Your task to perform on an android device: Open Reddit.com Image 0: 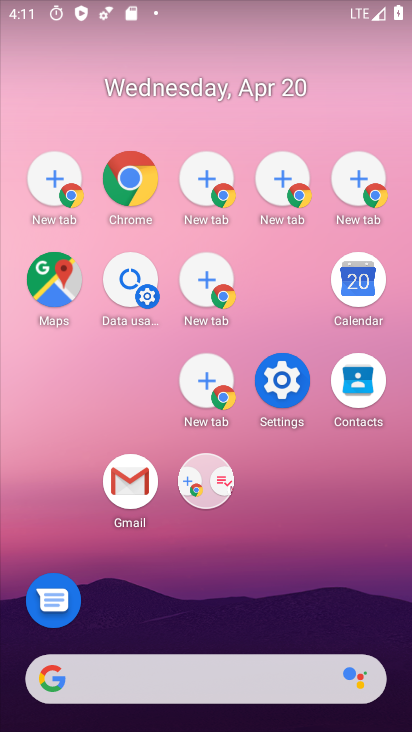
Step 0: drag from (210, 247) to (165, 78)
Your task to perform on an android device: Open Reddit.com Image 1: 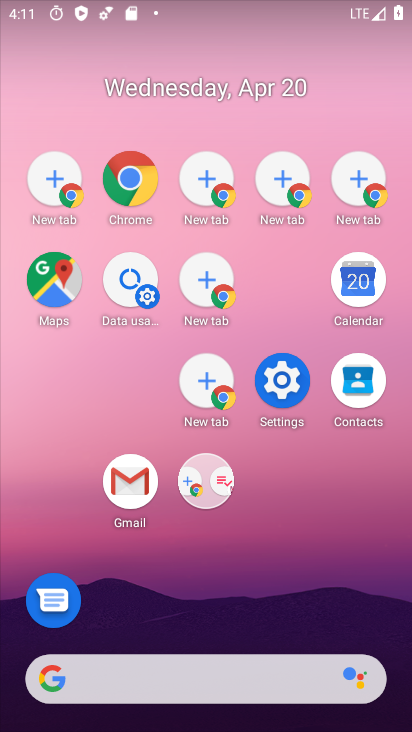
Step 1: click (125, 187)
Your task to perform on an android device: Open Reddit.com Image 2: 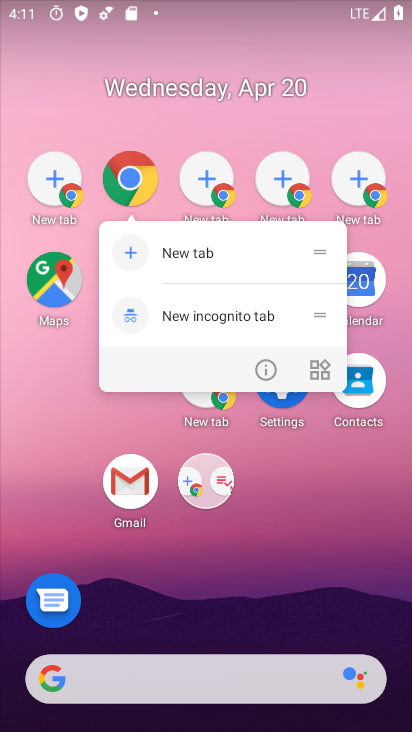
Step 2: click (196, 257)
Your task to perform on an android device: Open Reddit.com Image 3: 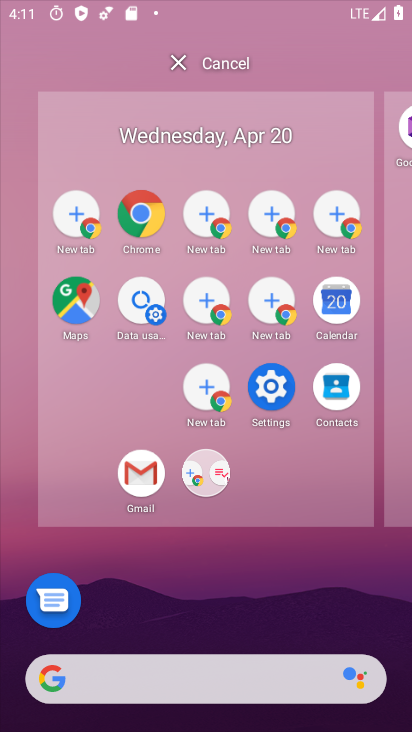
Step 3: drag from (297, 595) to (164, 140)
Your task to perform on an android device: Open Reddit.com Image 4: 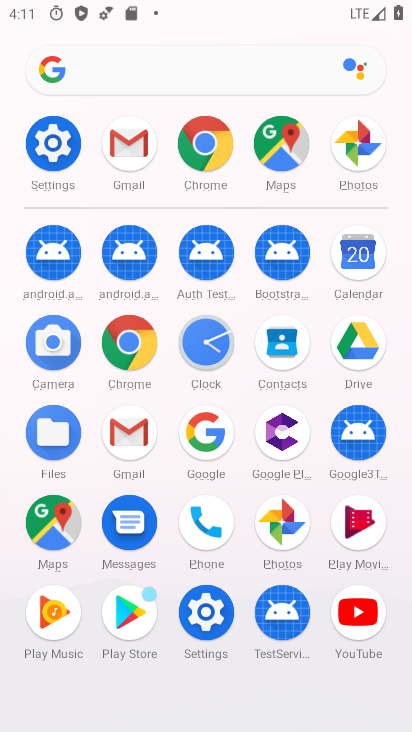
Step 4: click (199, 147)
Your task to perform on an android device: Open Reddit.com Image 5: 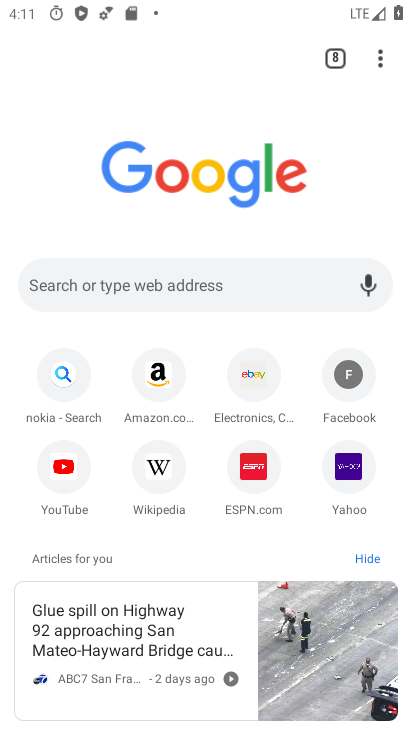
Step 5: click (113, 284)
Your task to perform on an android device: Open Reddit.com Image 6: 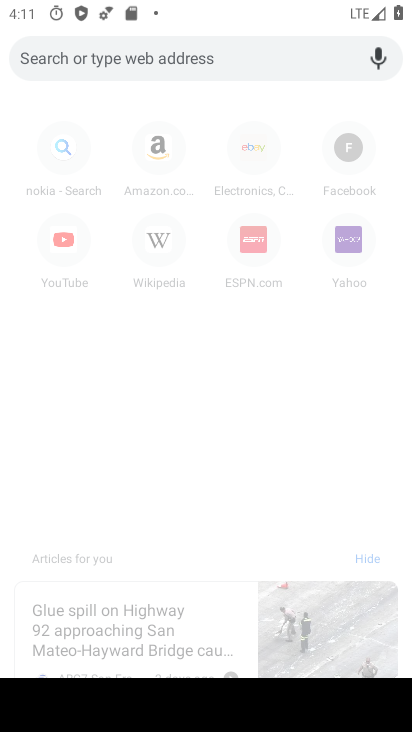
Step 6: type "www.reddit.com"
Your task to perform on an android device: Open Reddit.com Image 7: 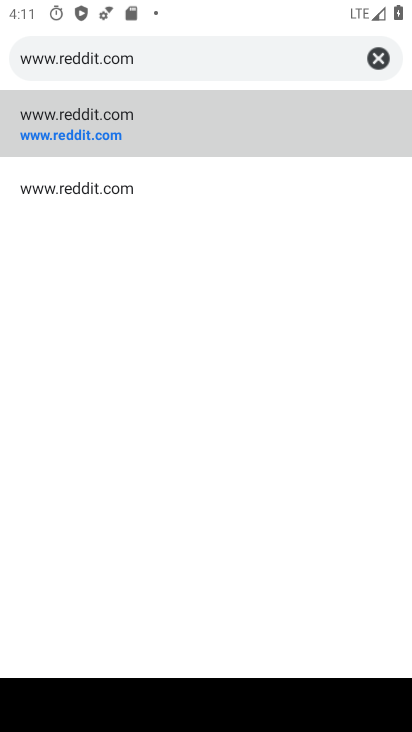
Step 7: click (82, 149)
Your task to perform on an android device: Open Reddit.com Image 8: 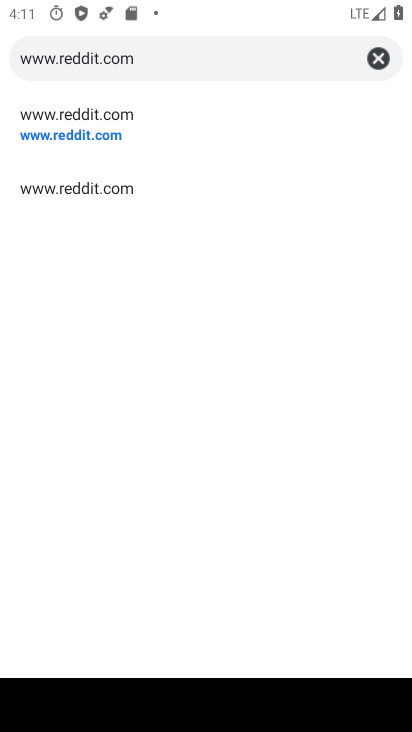
Step 8: click (133, 132)
Your task to perform on an android device: Open Reddit.com Image 9: 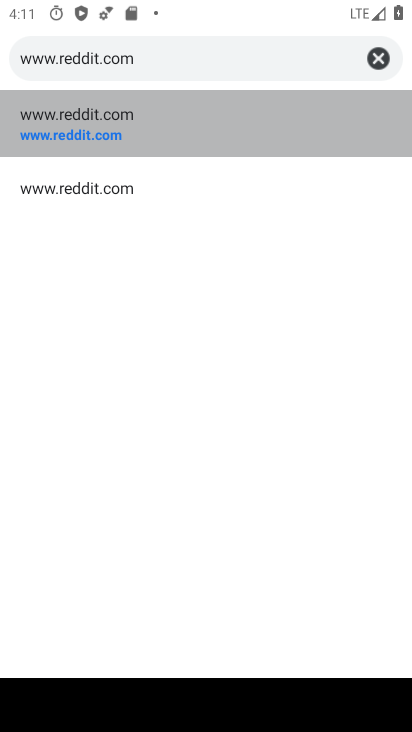
Step 9: click (133, 132)
Your task to perform on an android device: Open Reddit.com Image 10: 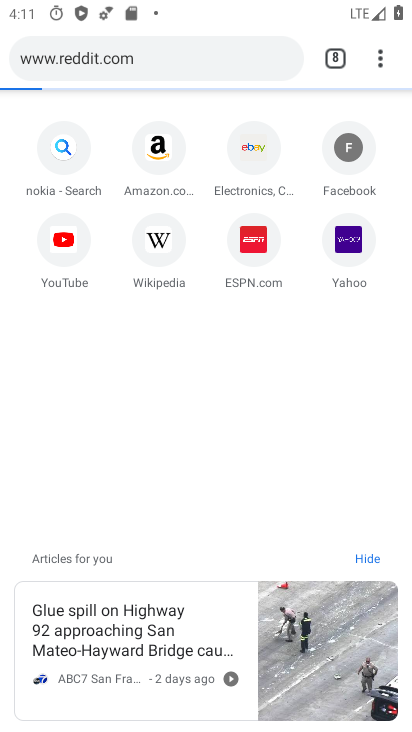
Step 10: click (131, 132)
Your task to perform on an android device: Open Reddit.com Image 11: 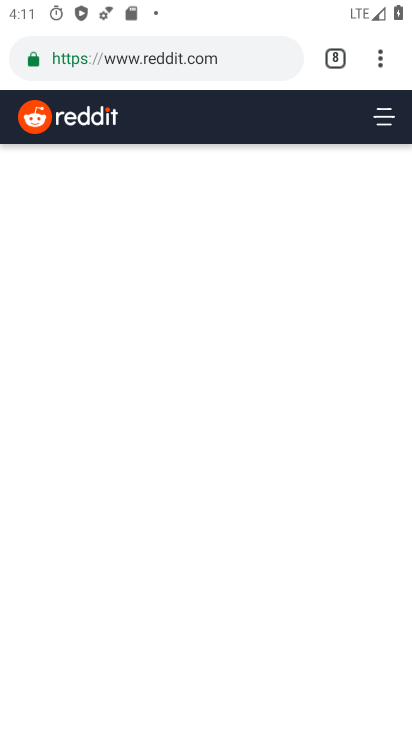
Step 11: task complete